Your task to perform on an android device: toggle javascript in the chrome app Image 0: 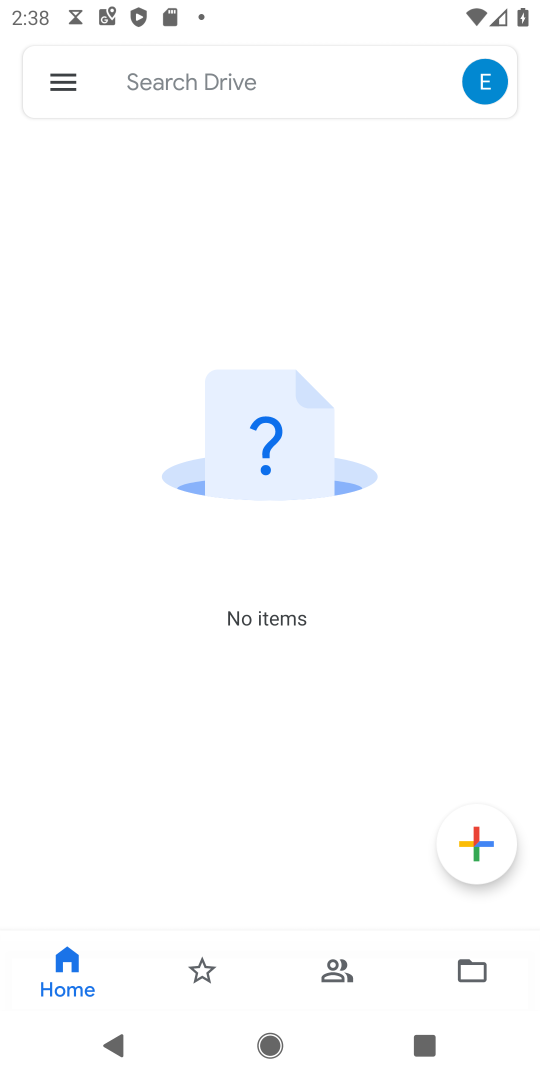
Step 0: press home button
Your task to perform on an android device: toggle javascript in the chrome app Image 1: 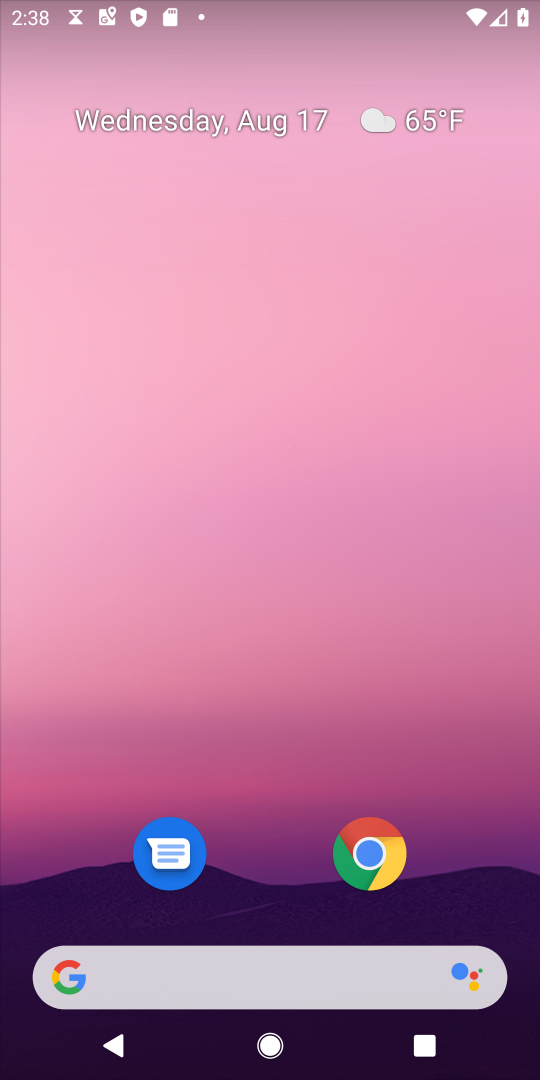
Step 1: drag from (281, 899) to (265, 104)
Your task to perform on an android device: toggle javascript in the chrome app Image 2: 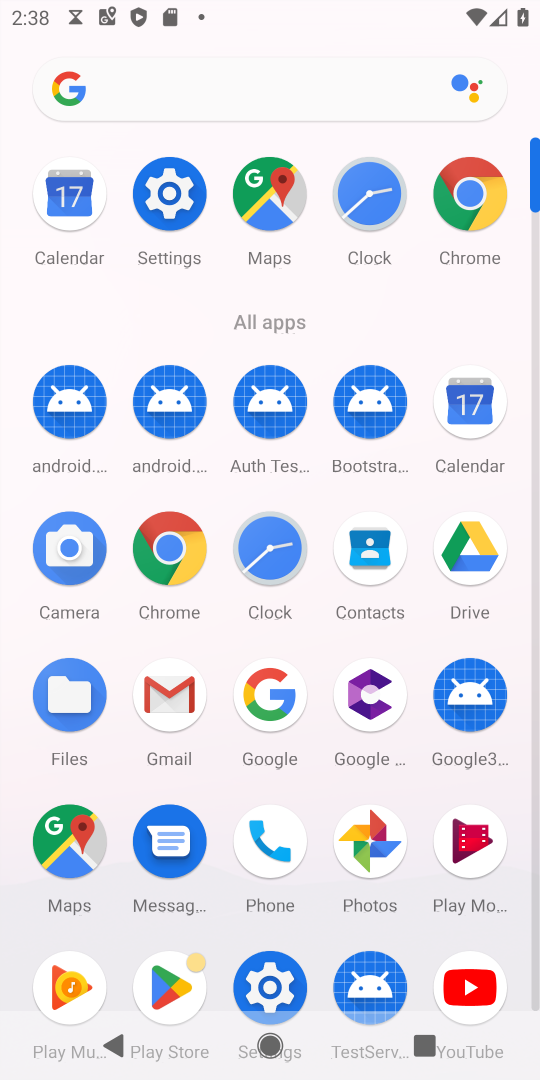
Step 2: click (170, 555)
Your task to perform on an android device: toggle javascript in the chrome app Image 3: 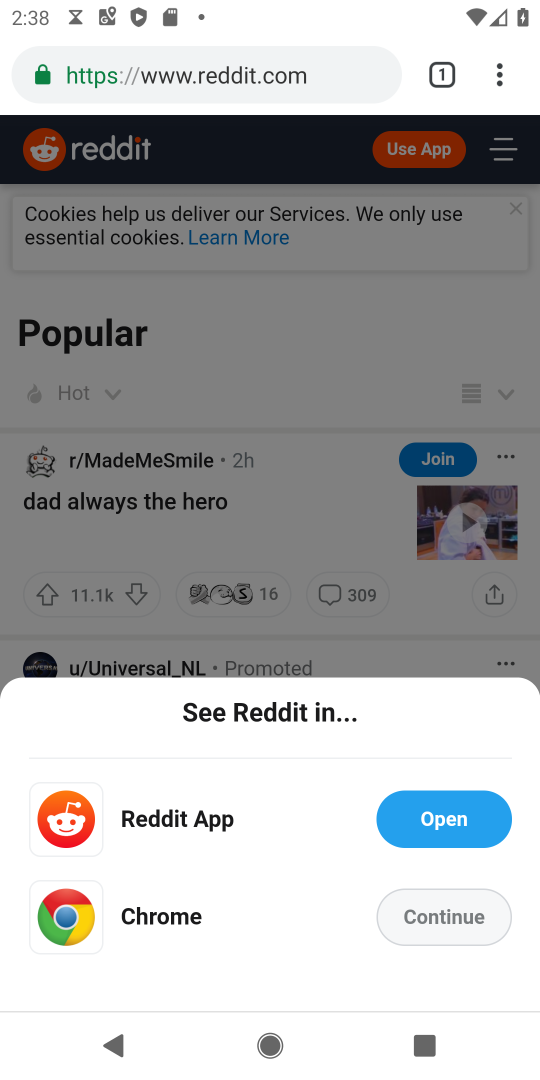
Step 3: drag from (501, 73) to (243, 888)
Your task to perform on an android device: toggle javascript in the chrome app Image 4: 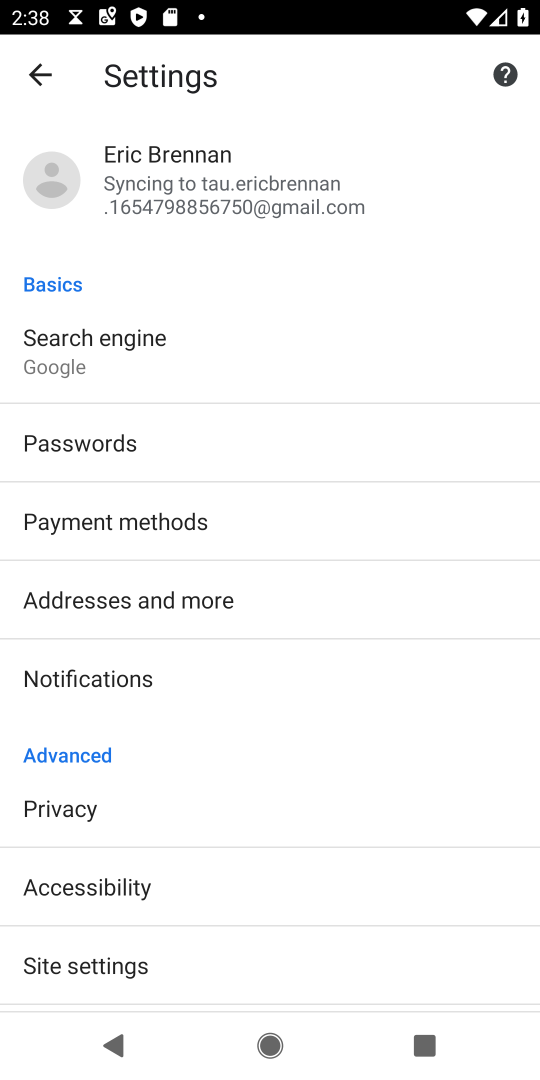
Step 4: drag from (299, 805) to (313, 329)
Your task to perform on an android device: toggle javascript in the chrome app Image 5: 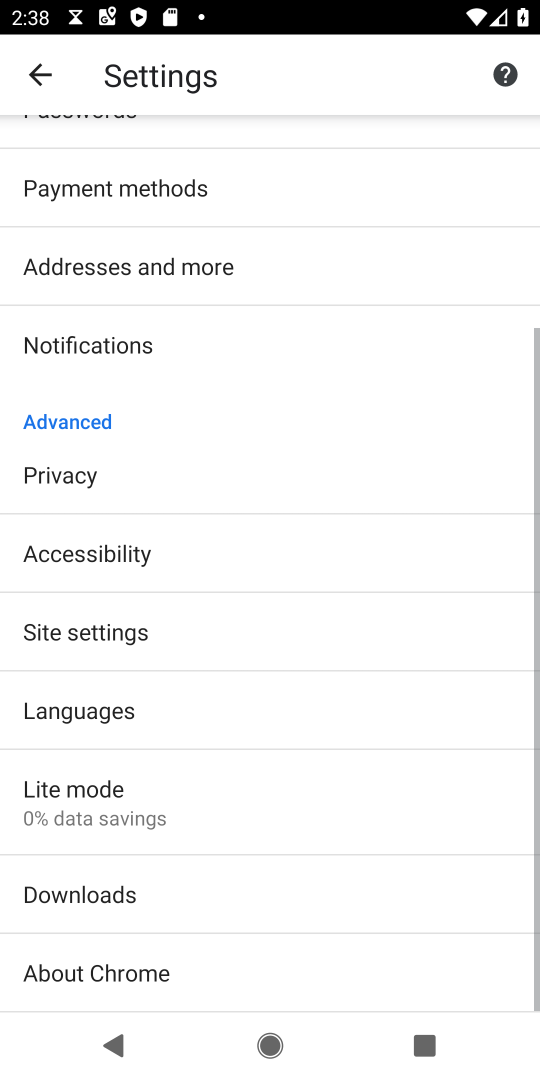
Step 5: click (145, 624)
Your task to perform on an android device: toggle javascript in the chrome app Image 6: 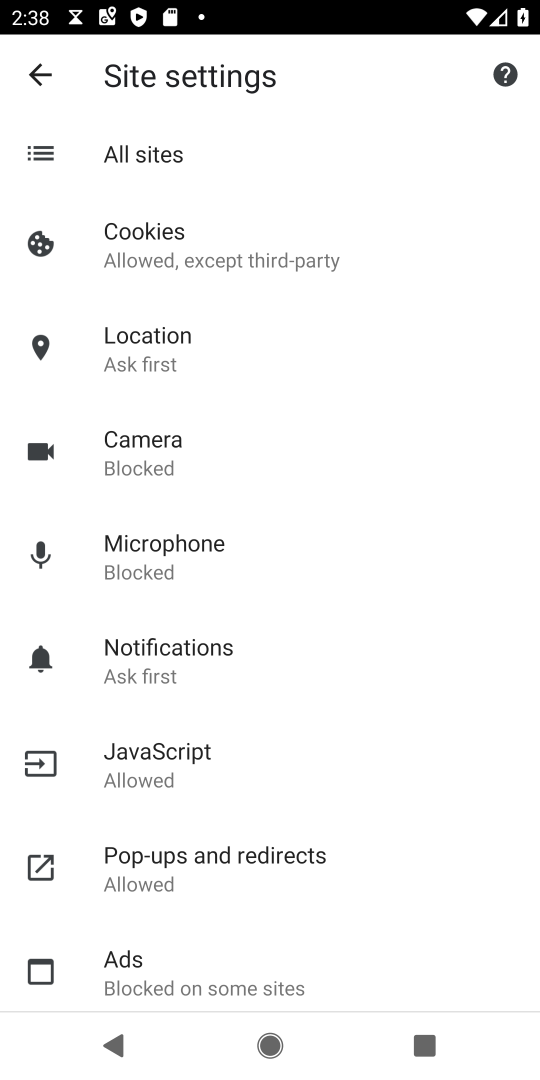
Step 6: click (99, 751)
Your task to perform on an android device: toggle javascript in the chrome app Image 7: 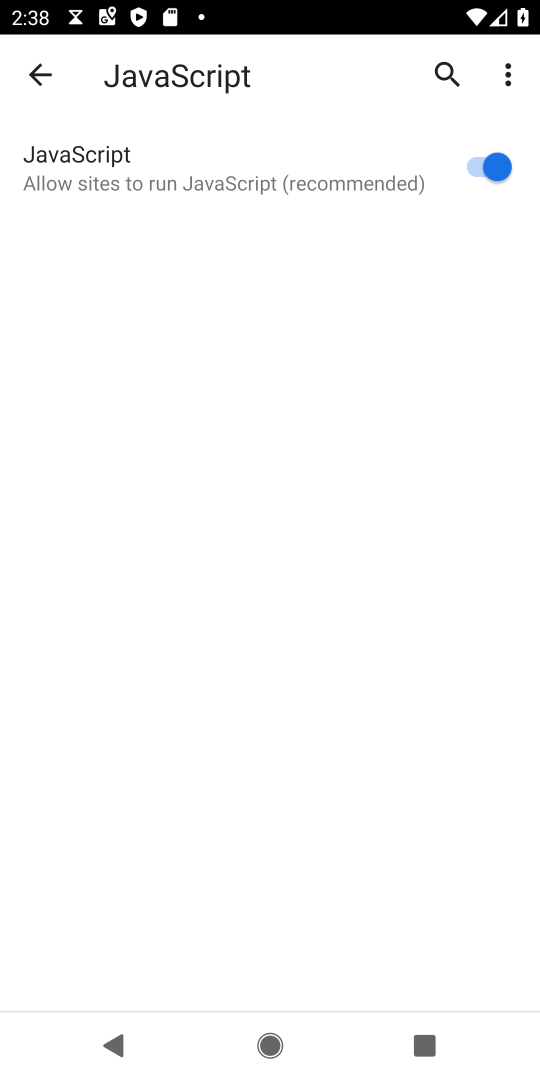
Step 7: click (309, 158)
Your task to perform on an android device: toggle javascript in the chrome app Image 8: 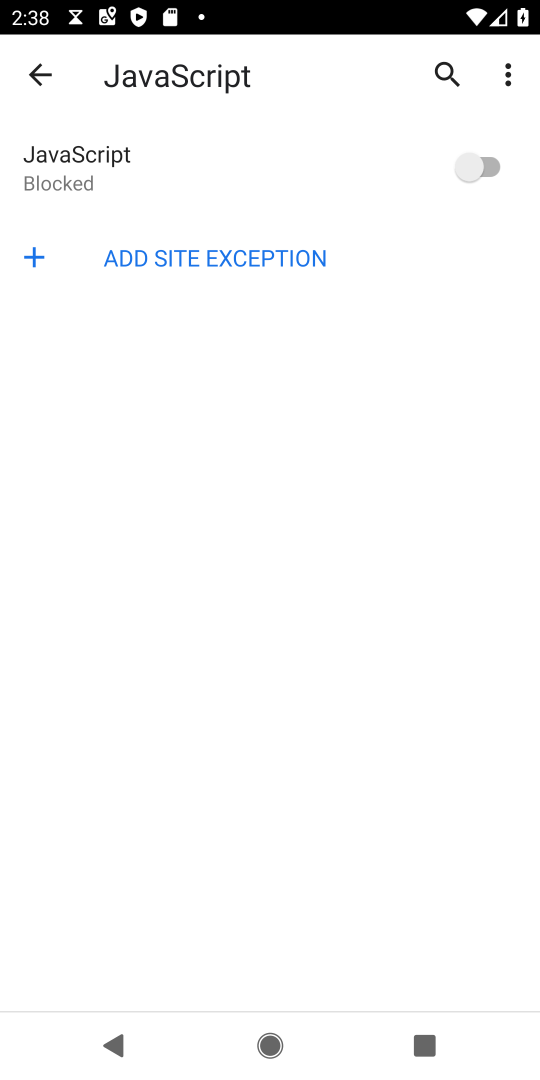
Step 8: task complete